Your task to perform on an android device: open app "Roku - Official Remote Control" (install if not already installed), go to login, and select forgot password Image 0: 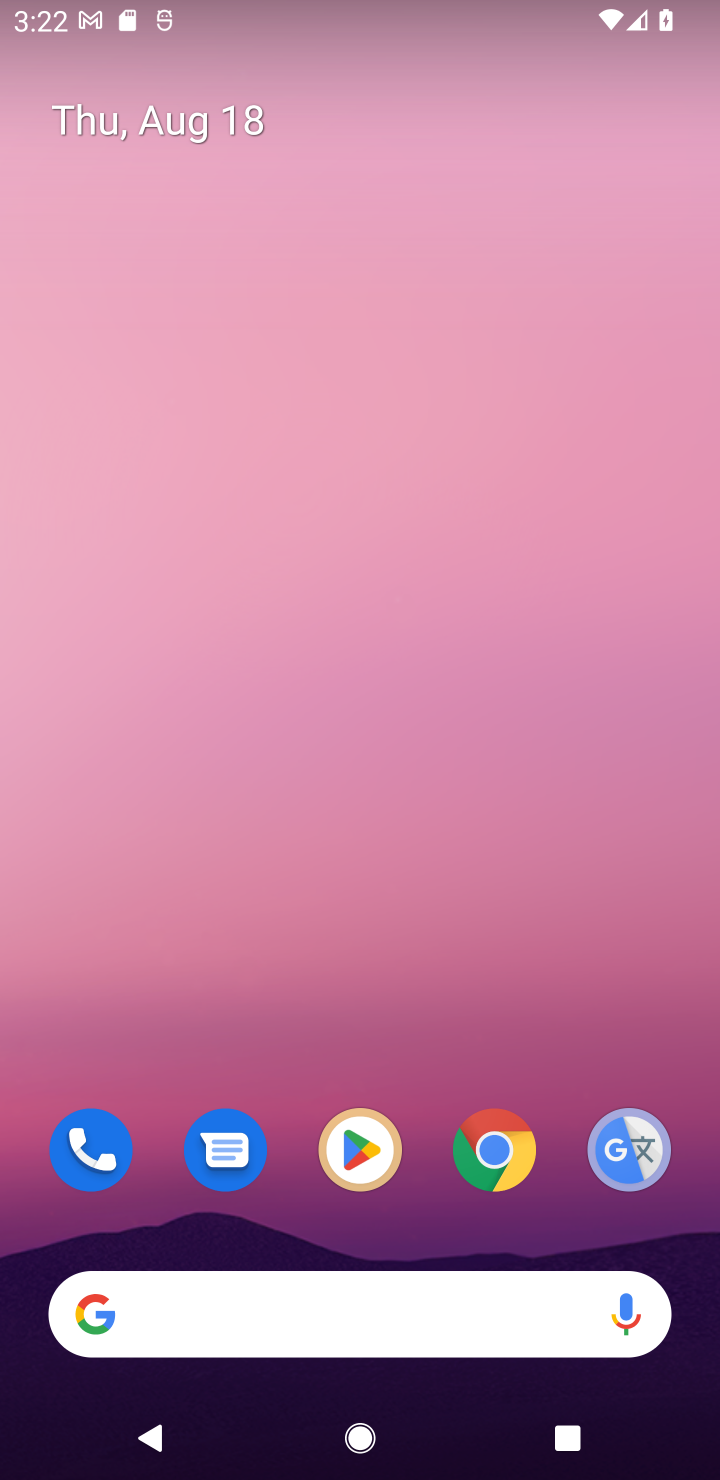
Step 0: click (369, 1146)
Your task to perform on an android device: open app "Roku - Official Remote Control" (install if not already installed), go to login, and select forgot password Image 1: 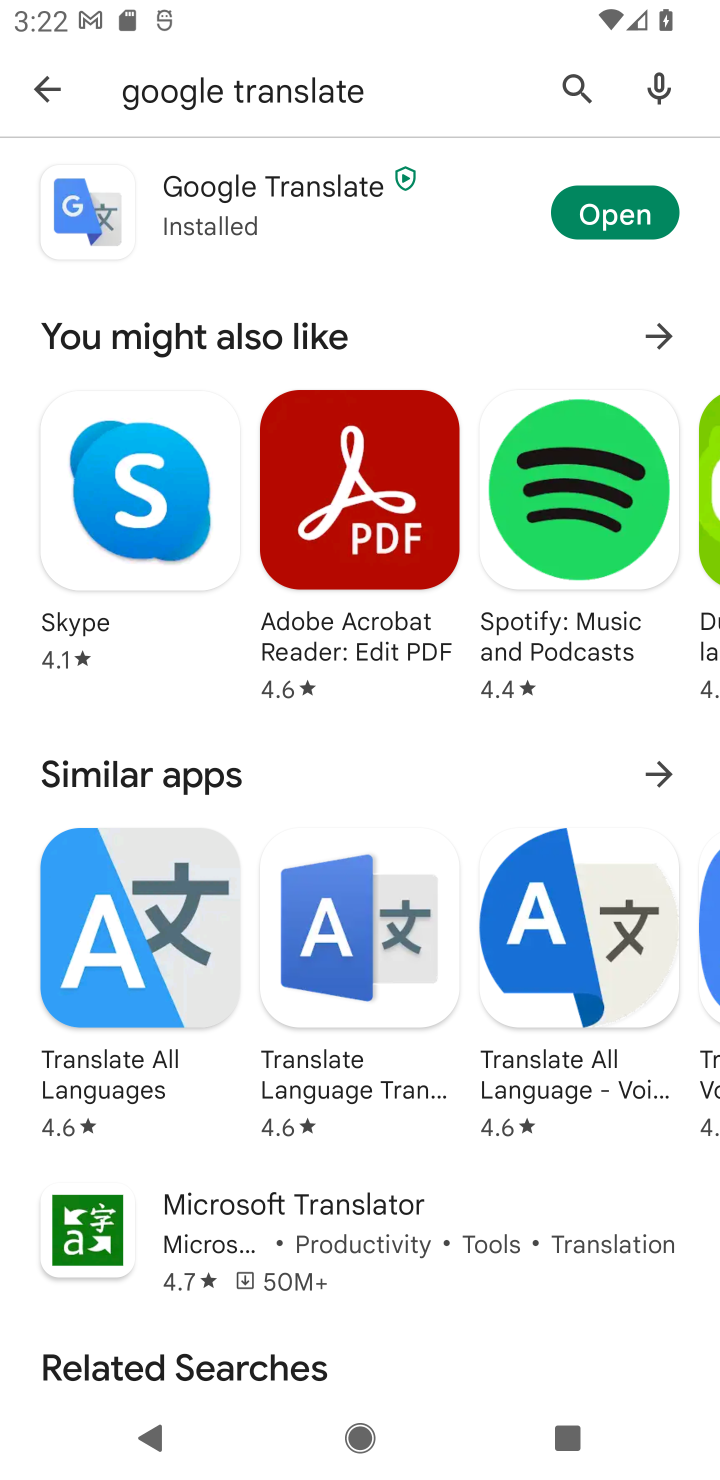
Step 1: click (568, 84)
Your task to perform on an android device: open app "Roku - Official Remote Control" (install if not already installed), go to login, and select forgot password Image 2: 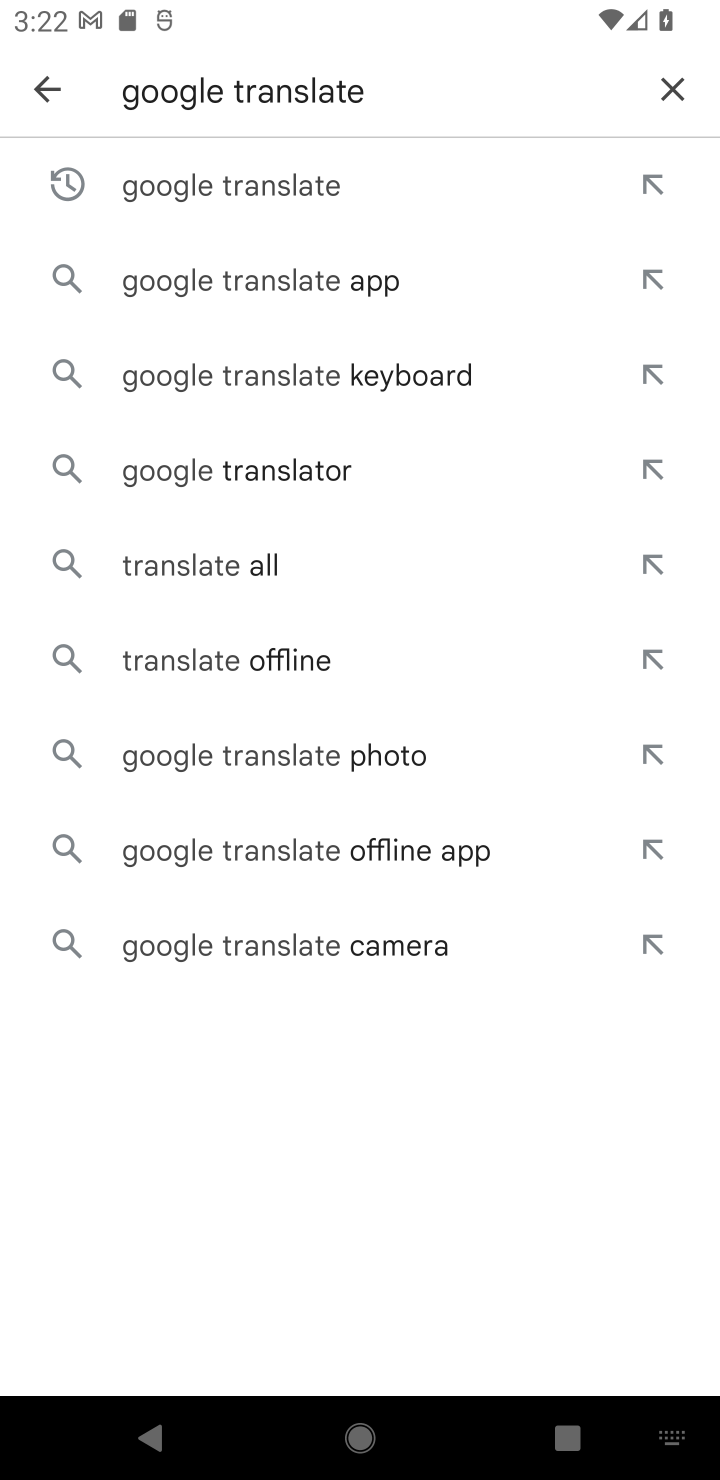
Step 2: click (677, 84)
Your task to perform on an android device: open app "Roku - Official Remote Control" (install if not already installed), go to login, and select forgot password Image 3: 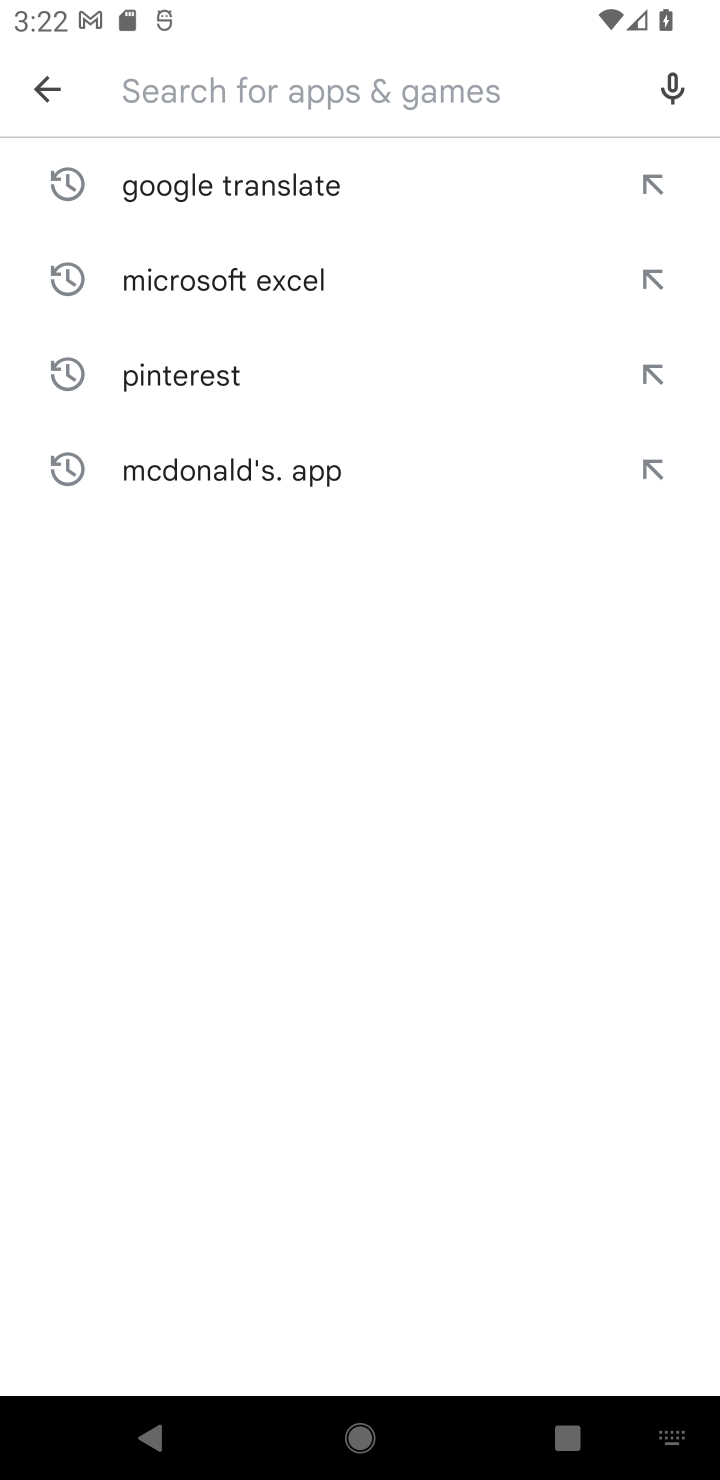
Step 3: type "Roku - Official Remote Control"
Your task to perform on an android device: open app "Roku - Official Remote Control" (install if not already installed), go to login, and select forgot password Image 4: 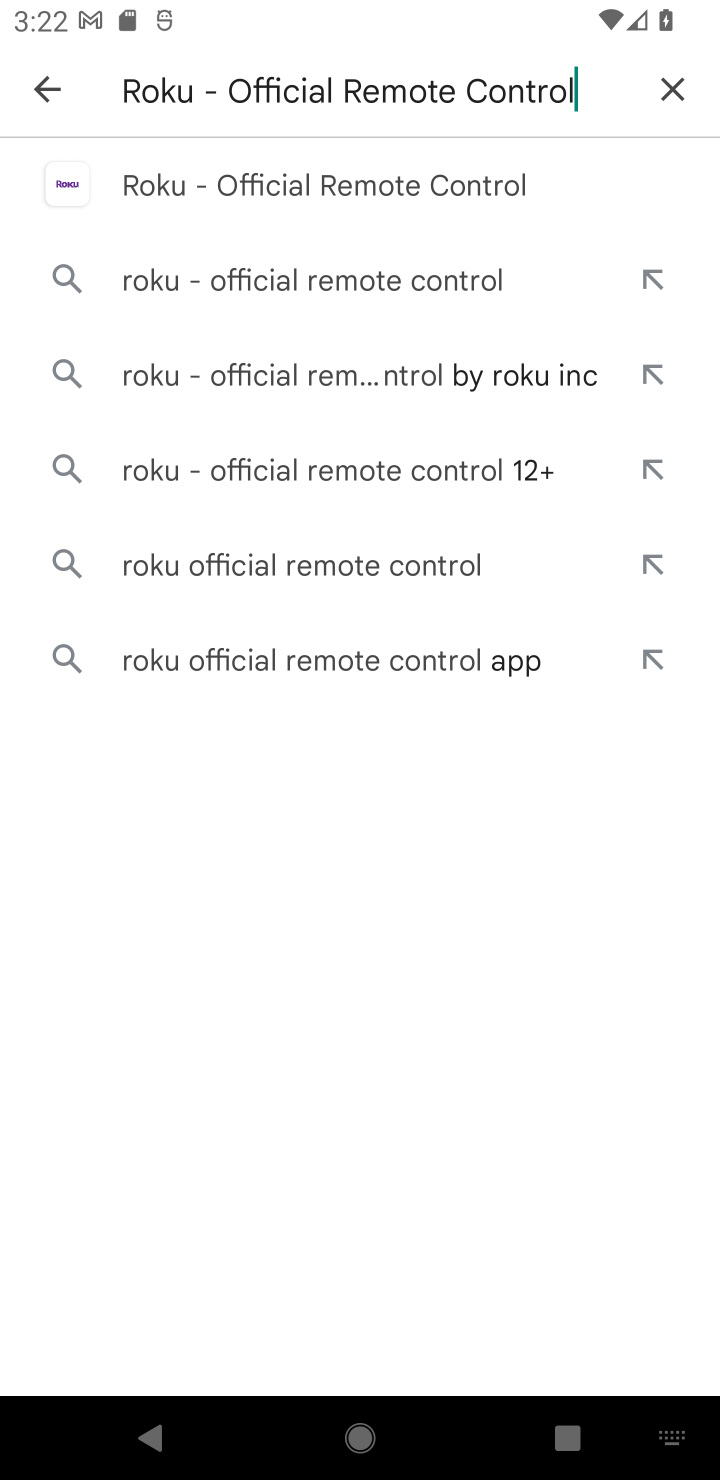
Step 4: click (225, 189)
Your task to perform on an android device: open app "Roku - Official Remote Control" (install if not already installed), go to login, and select forgot password Image 5: 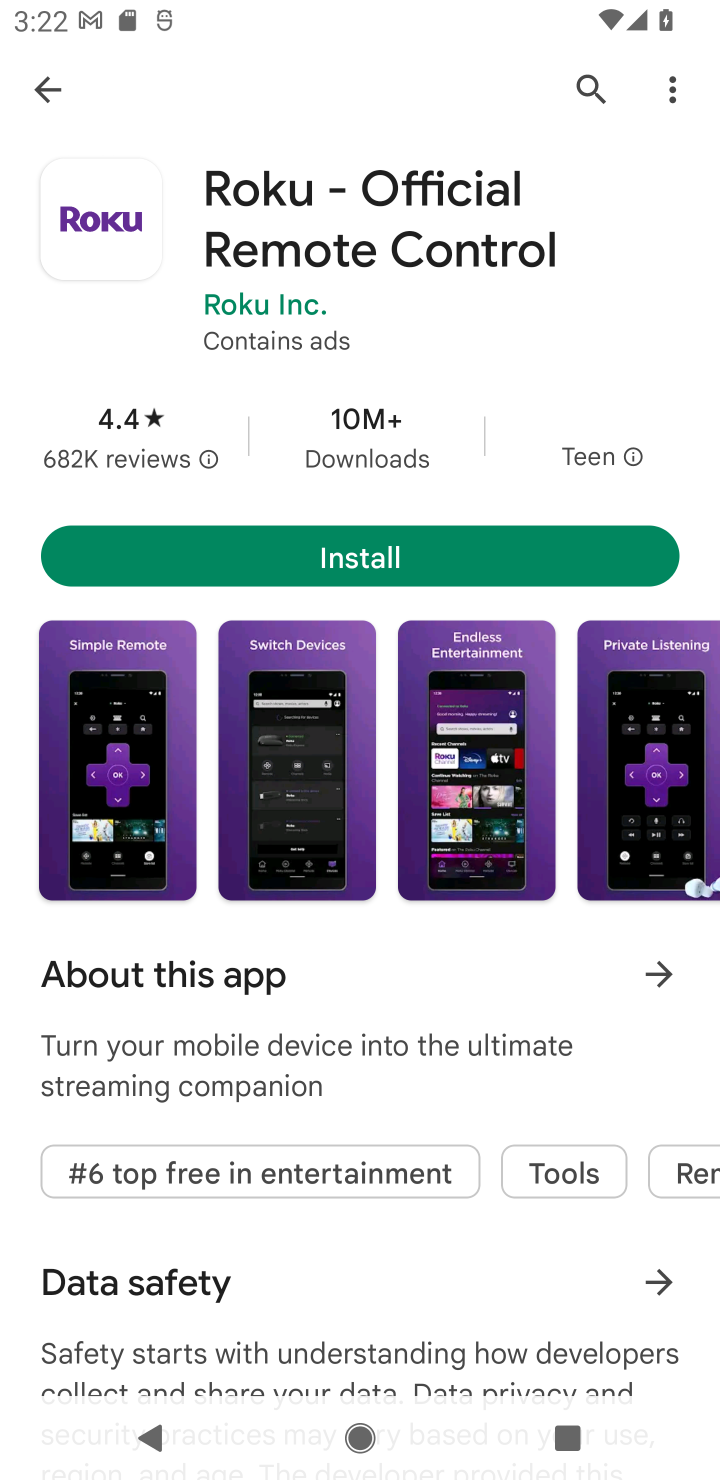
Step 5: click (353, 565)
Your task to perform on an android device: open app "Roku - Official Remote Control" (install if not already installed), go to login, and select forgot password Image 6: 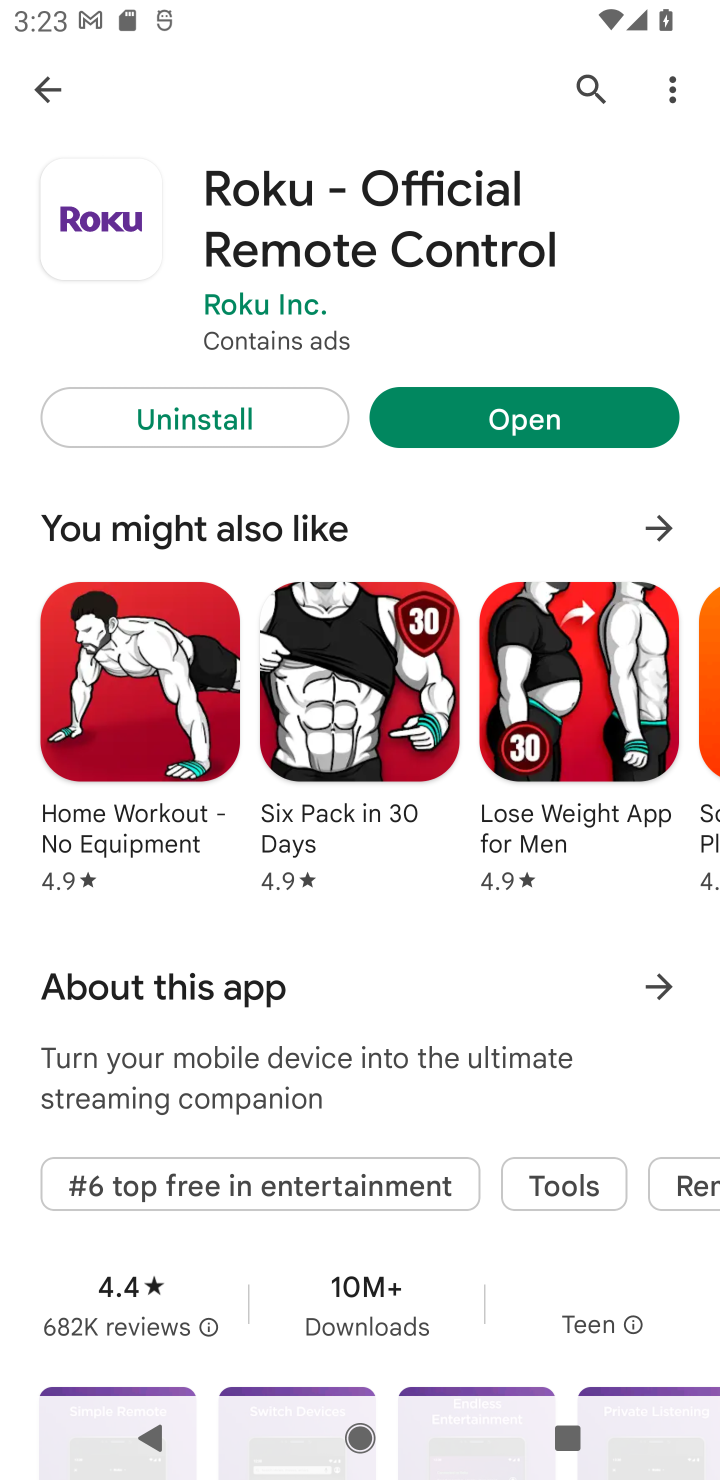
Step 6: click (526, 422)
Your task to perform on an android device: open app "Roku - Official Remote Control" (install if not already installed), go to login, and select forgot password Image 7: 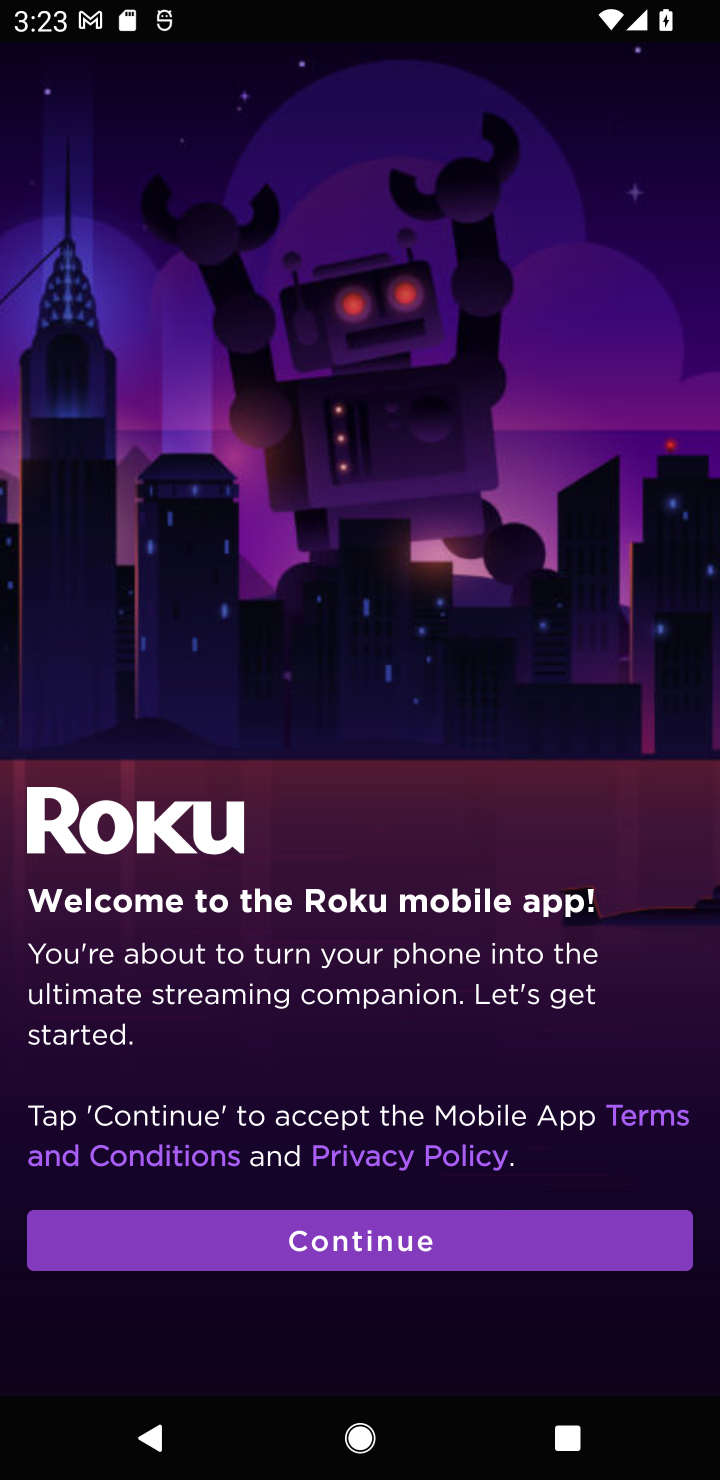
Step 7: click (355, 1250)
Your task to perform on an android device: open app "Roku - Official Remote Control" (install if not already installed), go to login, and select forgot password Image 8: 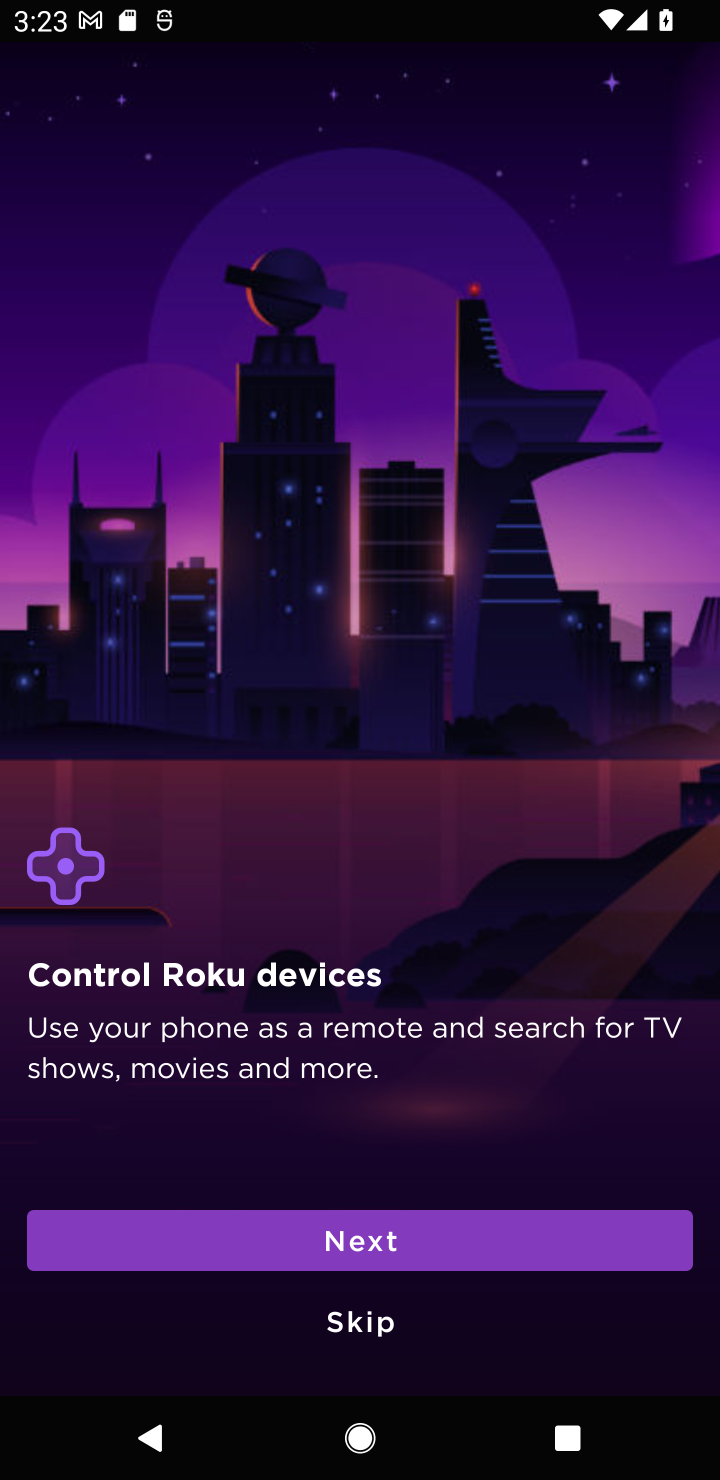
Step 8: click (354, 1327)
Your task to perform on an android device: open app "Roku - Official Remote Control" (install if not already installed), go to login, and select forgot password Image 9: 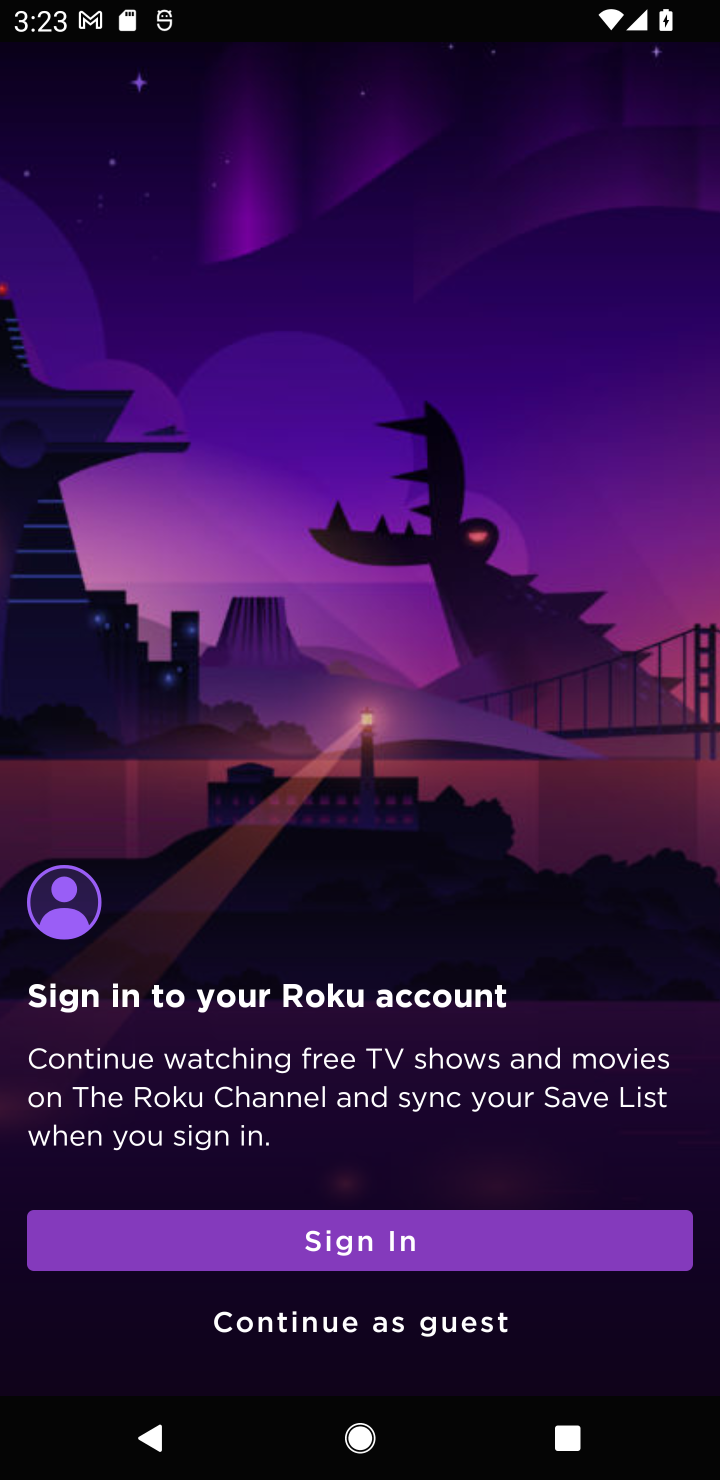
Step 9: click (358, 1240)
Your task to perform on an android device: open app "Roku - Official Remote Control" (install if not already installed), go to login, and select forgot password Image 10: 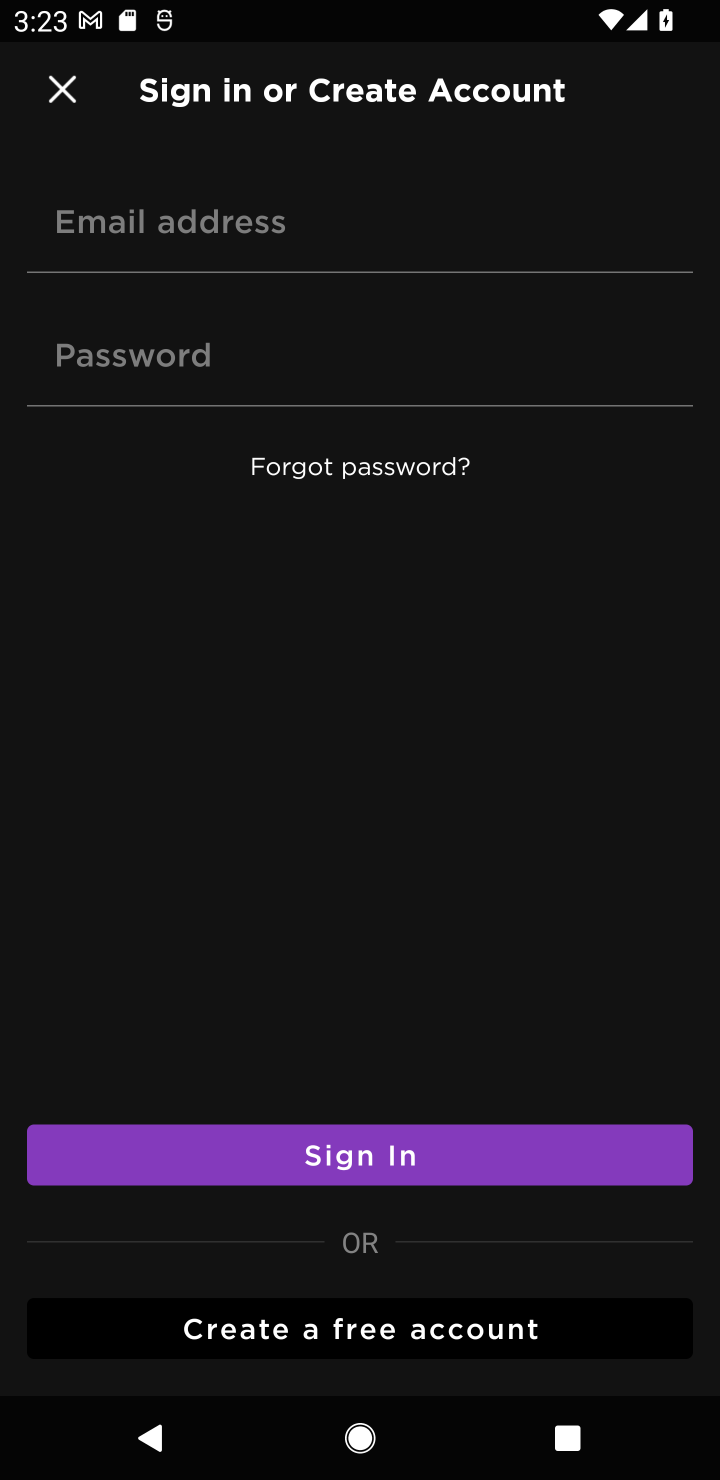
Step 10: click (359, 474)
Your task to perform on an android device: open app "Roku - Official Remote Control" (install if not already installed), go to login, and select forgot password Image 11: 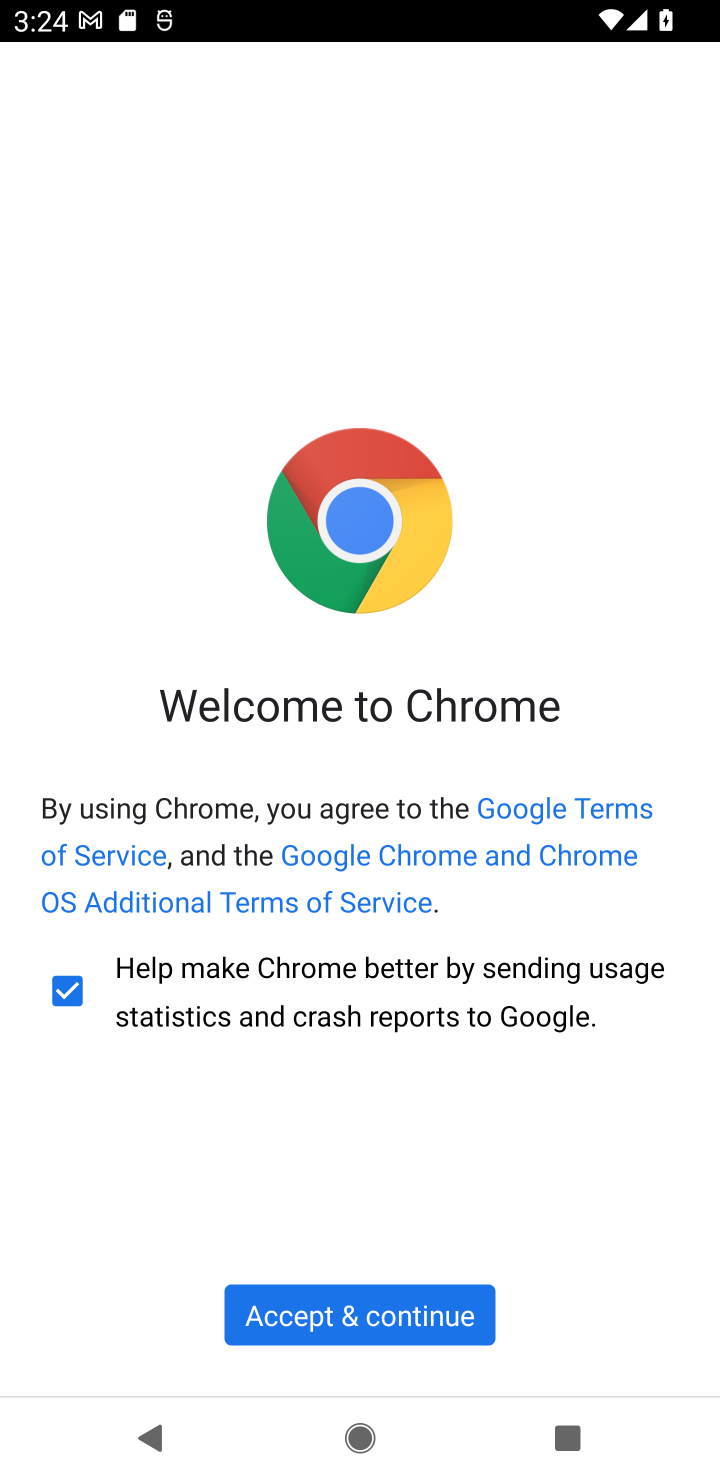
Step 11: task complete